Your task to perform on an android device: Check the news Image 0: 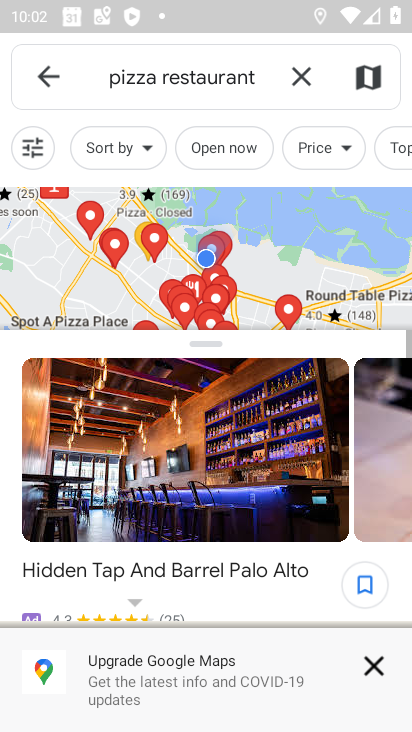
Step 0: press home button
Your task to perform on an android device: Check the news Image 1: 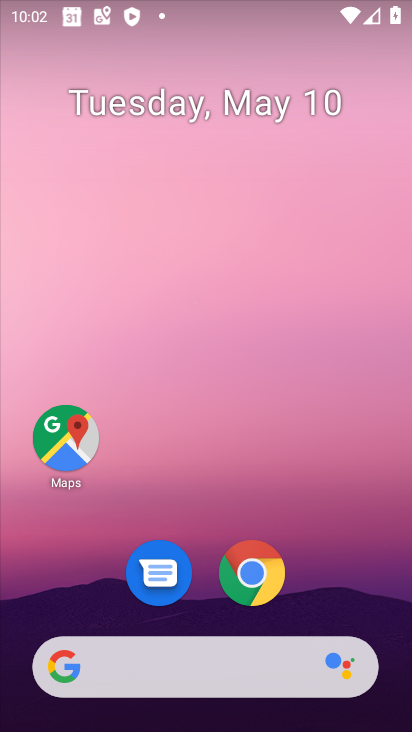
Step 1: task complete